Your task to perform on an android device: Search for sushi restaurants on Maps Image 0: 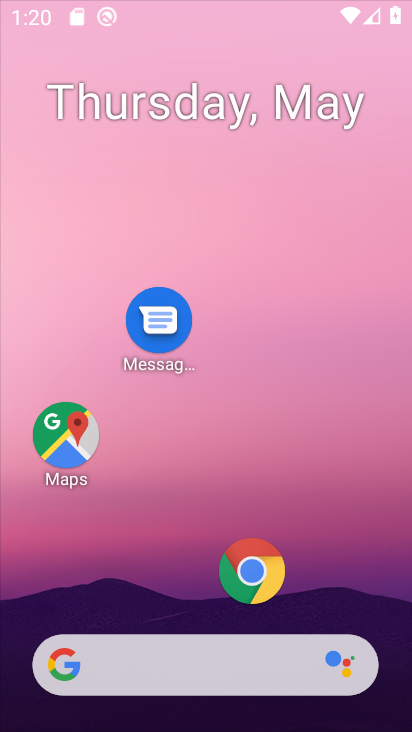
Step 0: click (238, 59)
Your task to perform on an android device: Search for sushi restaurants on Maps Image 1: 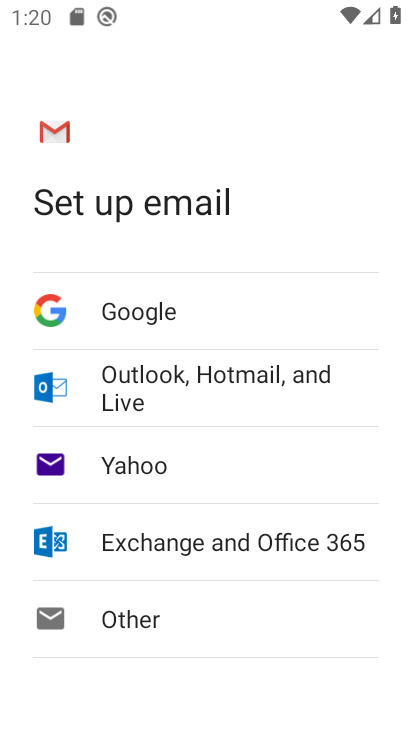
Step 1: drag from (206, 515) to (206, 210)
Your task to perform on an android device: Search for sushi restaurants on Maps Image 2: 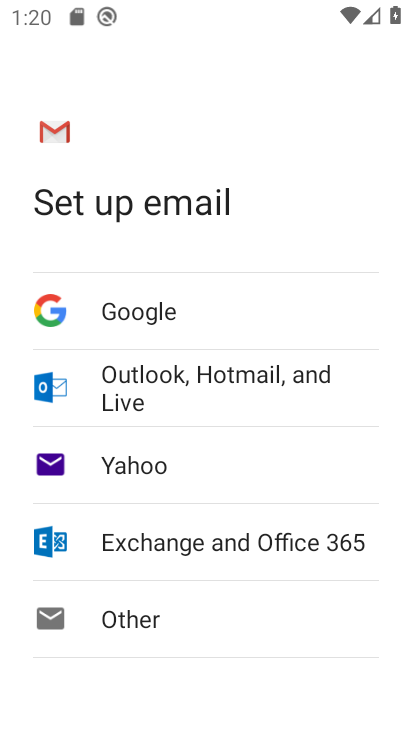
Step 2: drag from (188, 657) to (242, 196)
Your task to perform on an android device: Search for sushi restaurants on Maps Image 3: 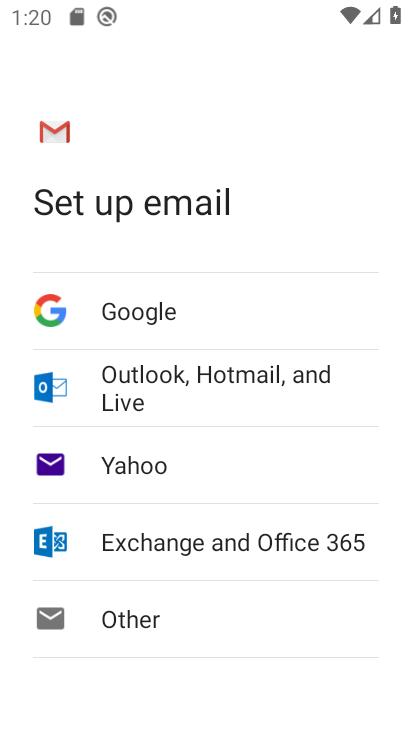
Step 3: press home button
Your task to perform on an android device: Search for sushi restaurants on Maps Image 4: 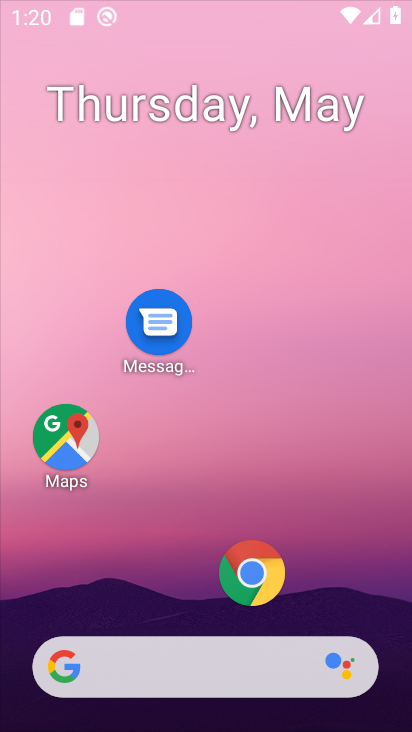
Step 4: drag from (215, 681) to (221, 167)
Your task to perform on an android device: Search for sushi restaurants on Maps Image 5: 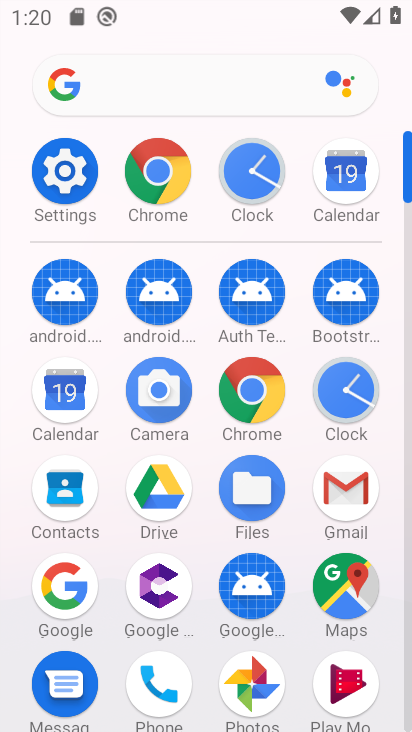
Step 5: click (334, 588)
Your task to perform on an android device: Search for sushi restaurants on Maps Image 6: 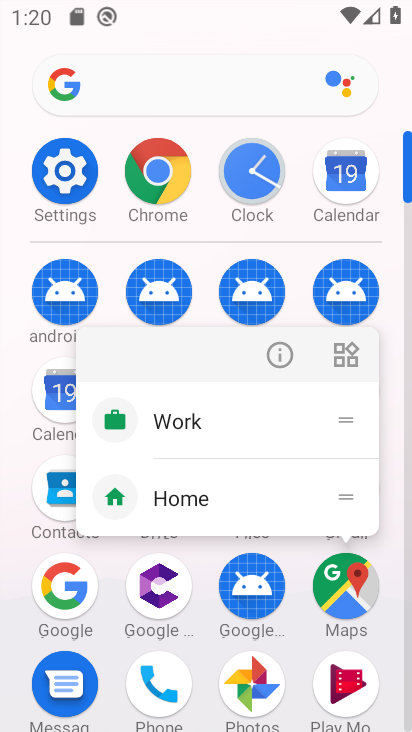
Step 6: click (279, 342)
Your task to perform on an android device: Search for sushi restaurants on Maps Image 7: 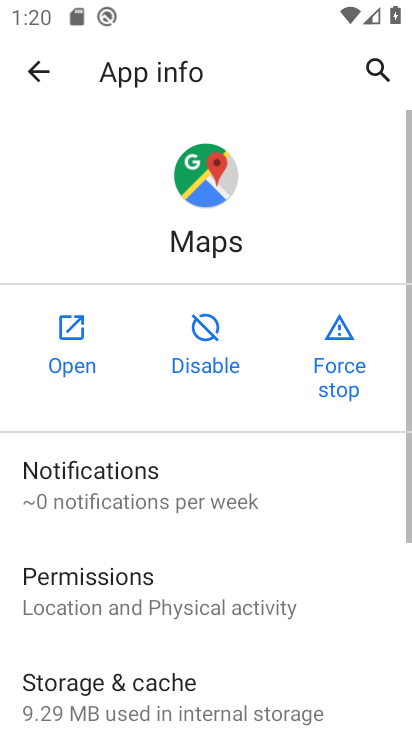
Step 7: click (59, 333)
Your task to perform on an android device: Search for sushi restaurants on Maps Image 8: 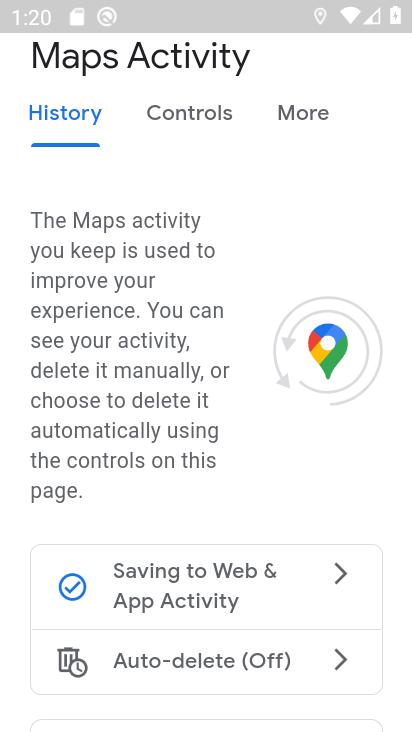
Step 8: press back button
Your task to perform on an android device: Search for sushi restaurants on Maps Image 9: 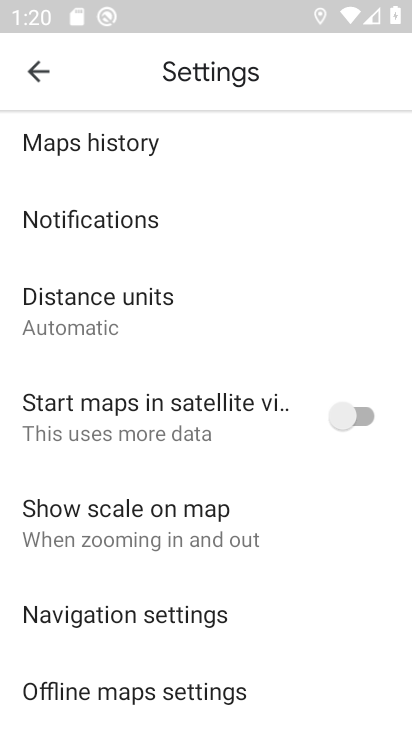
Step 9: press back button
Your task to perform on an android device: Search for sushi restaurants on Maps Image 10: 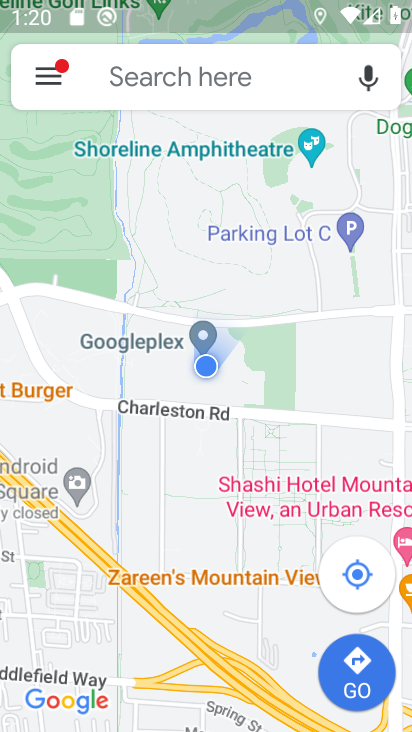
Step 10: click (207, 80)
Your task to perform on an android device: Search for sushi restaurants on Maps Image 11: 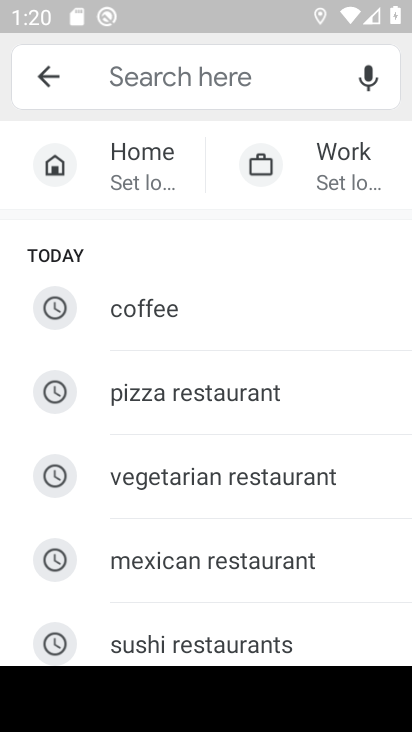
Step 11: drag from (216, 608) to (243, 245)
Your task to perform on an android device: Search for sushi restaurants on Maps Image 12: 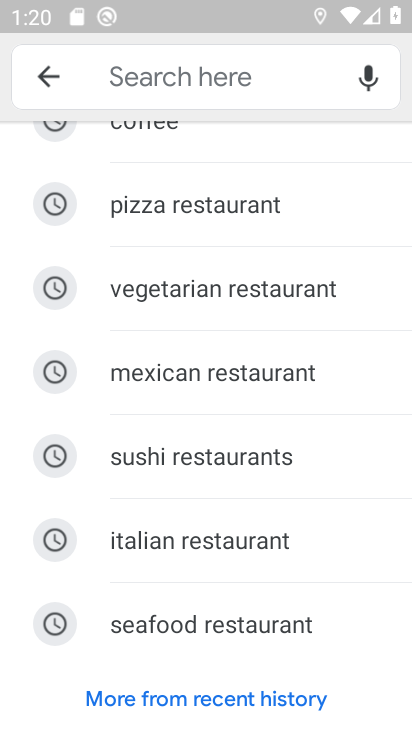
Step 12: click (171, 463)
Your task to perform on an android device: Search for sushi restaurants on Maps Image 13: 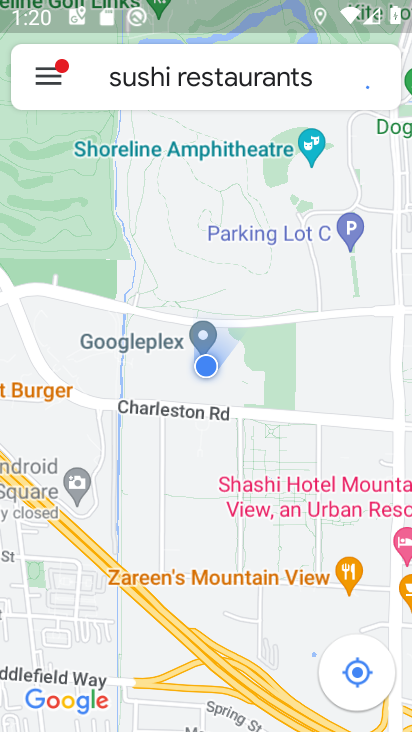
Step 13: task complete